Your task to perform on an android device: check storage Image 0: 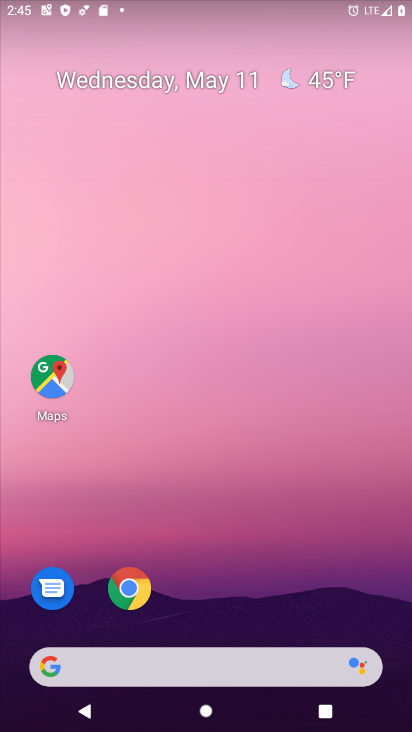
Step 0: drag from (247, 621) to (268, 396)
Your task to perform on an android device: check storage Image 1: 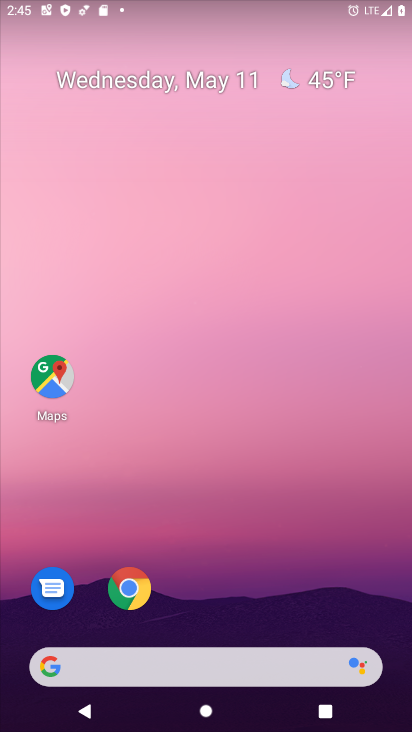
Step 1: drag from (220, 610) to (220, 219)
Your task to perform on an android device: check storage Image 2: 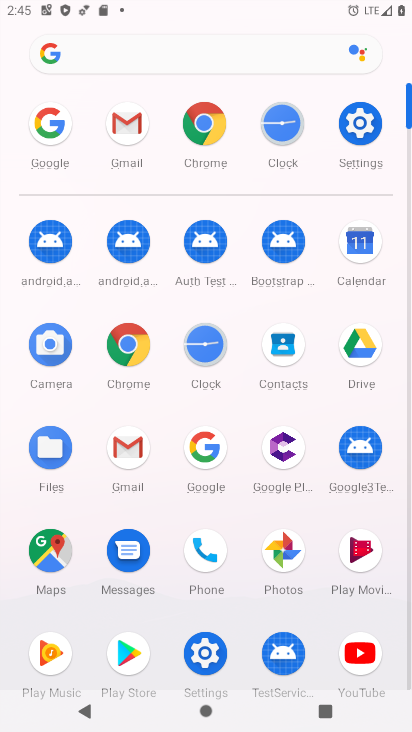
Step 2: click (359, 126)
Your task to perform on an android device: check storage Image 3: 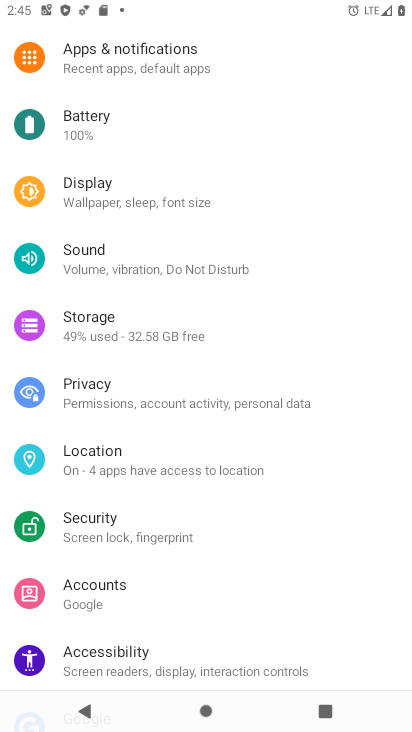
Step 3: click (138, 318)
Your task to perform on an android device: check storage Image 4: 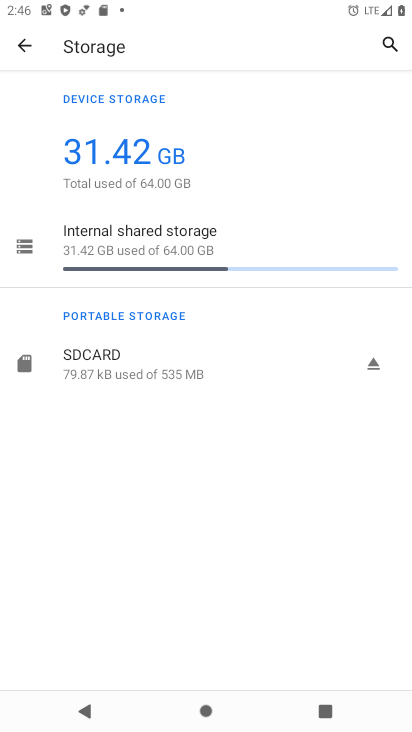
Step 4: task complete